Your task to perform on an android device: snooze an email in the gmail app Image 0: 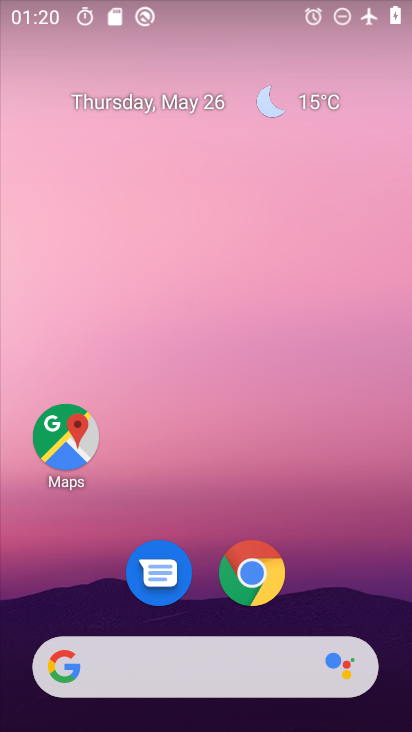
Step 0: drag from (337, 613) to (309, 9)
Your task to perform on an android device: snooze an email in the gmail app Image 1: 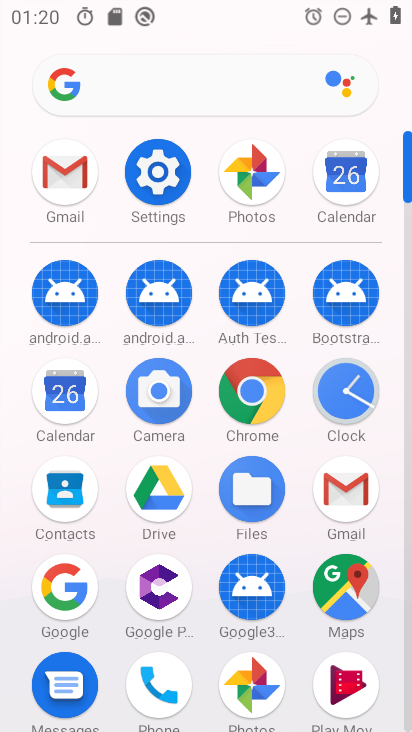
Step 1: click (59, 171)
Your task to perform on an android device: snooze an email in the gmail app Image 2: 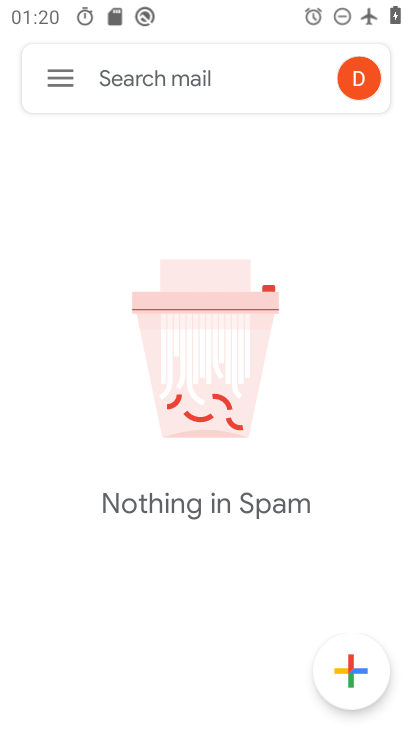
Step 2: click (57, 77)
Your task to perform on an android device: snooze an email in the gmail app Image 3: 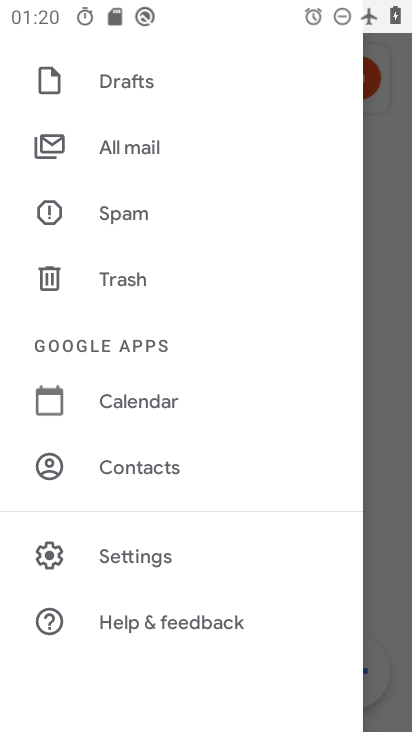
Step 3: click (121, 153)
Your task to perform on an android device: snooze an email in the gmail app Image 4: 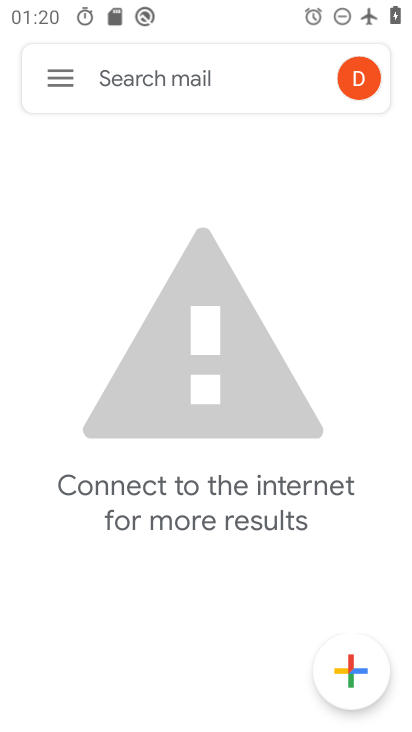
Step 4: task complete